Your task to perform on an android device: set an alarm Image 0: 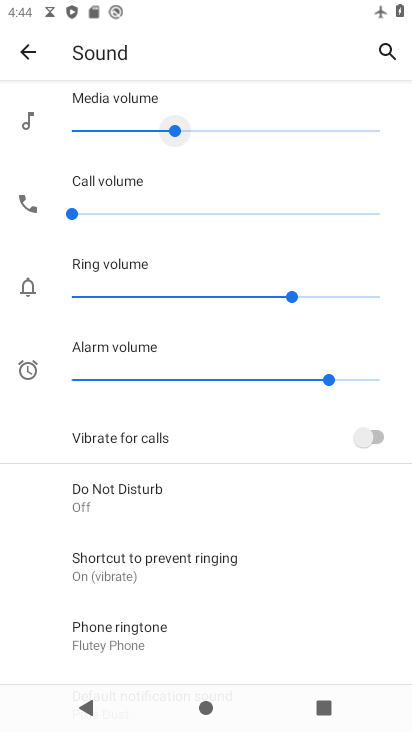
Step 0: press home button
Your task to perform on an android device: set an alarm Image 1: 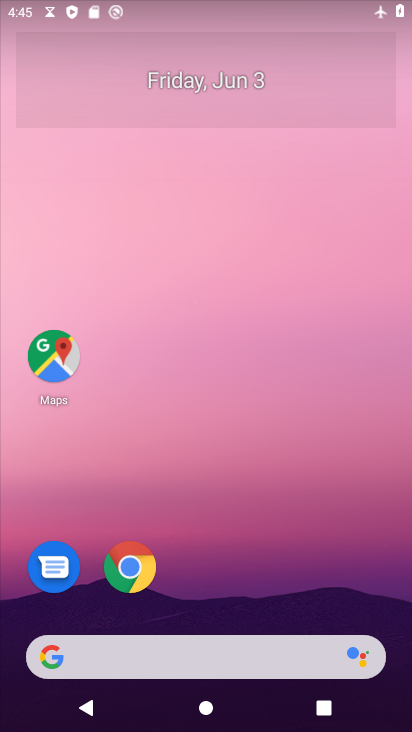
Step 1: drag from (300, 529) to (218, 30)
Your task to perform on an android device: set an alarm Image 2: 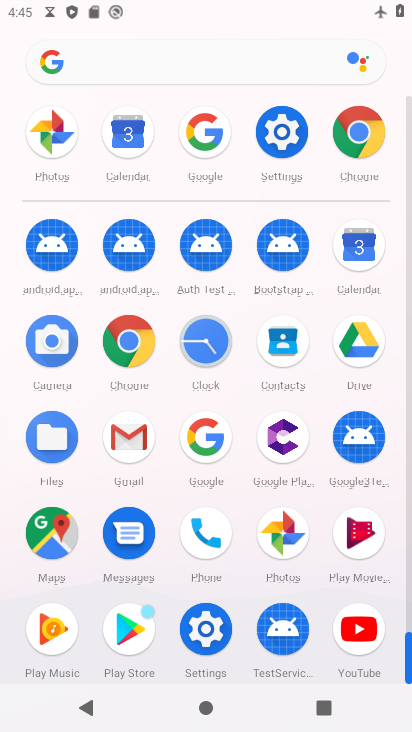
Step 2: click (208, 342)
Your task to perform on an android device: set an alarm Image 3: 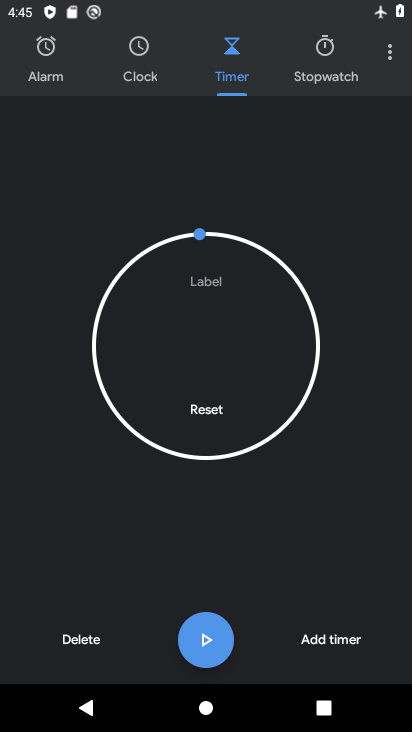
Step 3: click (45, 50)
Your task to perform on an android device: set an alarm Image 4: 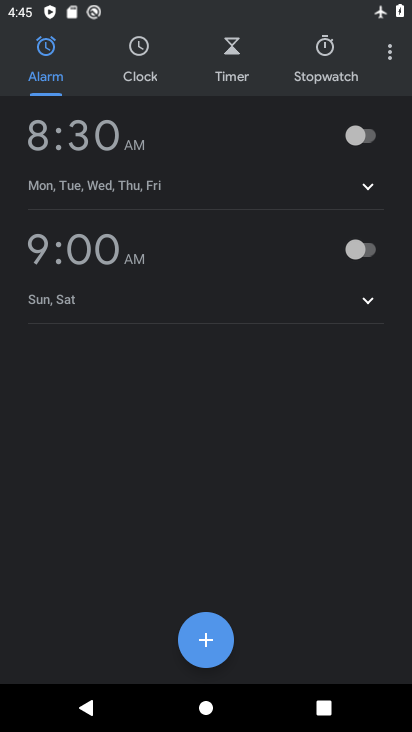
Step 4: click (204, 638)
Your task to perform on an android device: set an alarm Image 5: 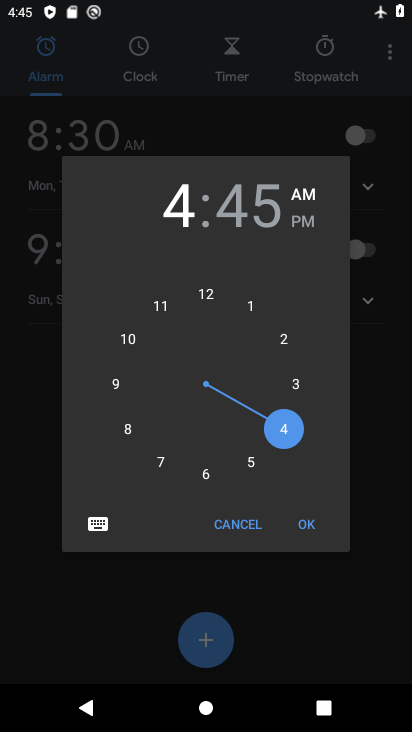
Step 5: click (123, 340)
Your task to perform on an android device: set an alarm Image 6: 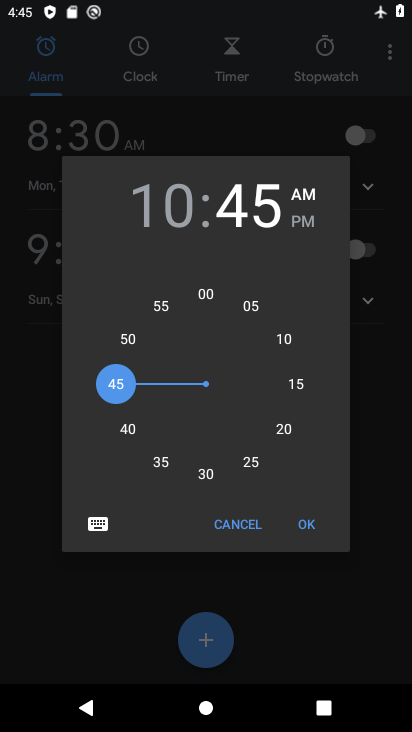
Step 6: click (295, 213)
Your task to perform on an android device: set an alarm Image 7: 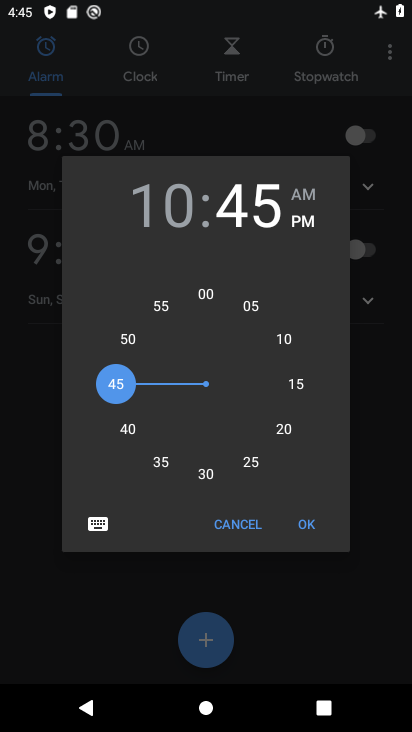
Step 7: click (313, 523)
Your task to perform on an android device: set an alarm Image 8: 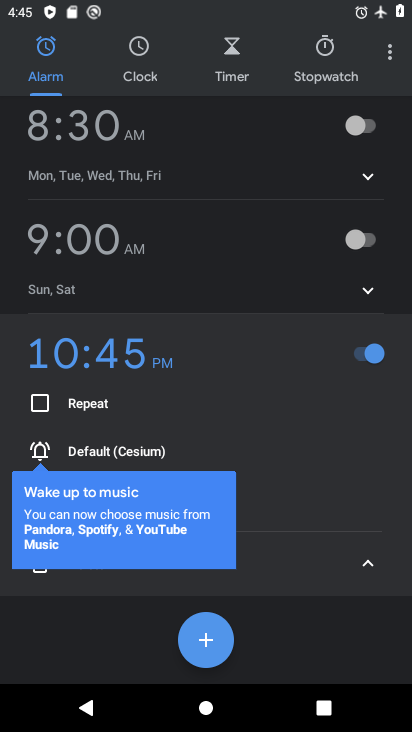
Step 8: click (371, 560)
Your task to perform on an android device: set an alarm Image 9: 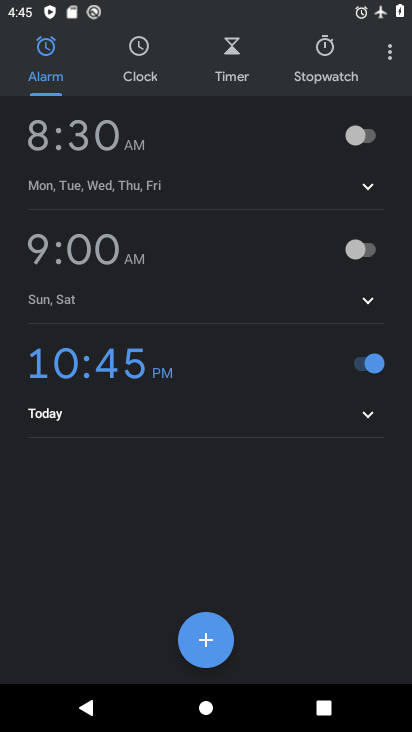
Step 9: task complete